Your task to perform on an android device: Search for seafood restaurants on Google Maps Image 0: 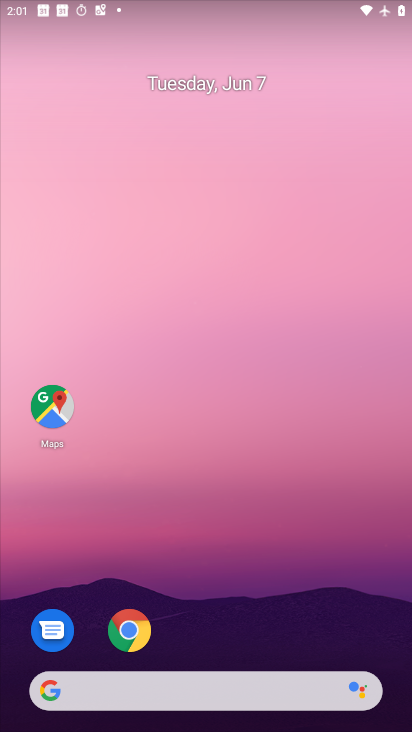
Step 0: drag from (352, 613) to (211, 95)
Your task to perform on an android device: Search for seafood restaurants on Google Maps Image 1: 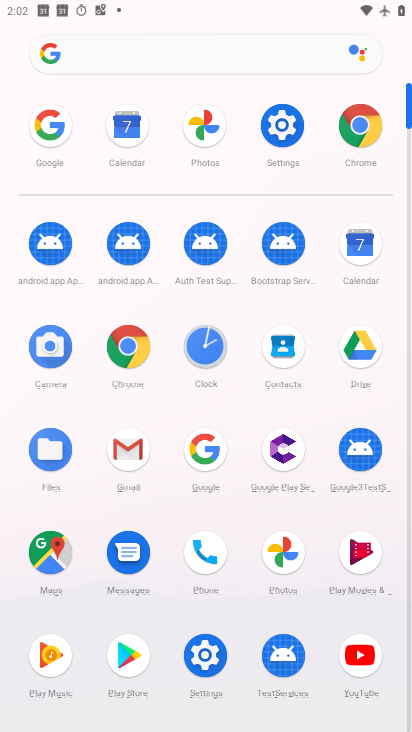
Step 1: click (46, 568)
Your task to perform on an android device: Search for seafood restaurants on Google Maps Image 2: 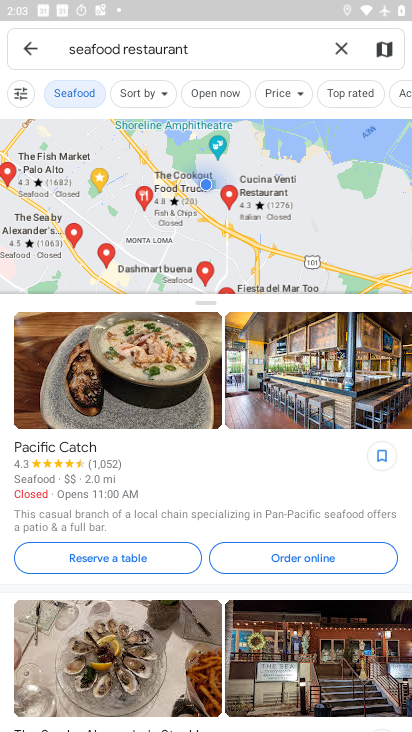
Step 2: task complete